Your task to perform on an android device: Search for a storage ottoman in the living room Image 0: 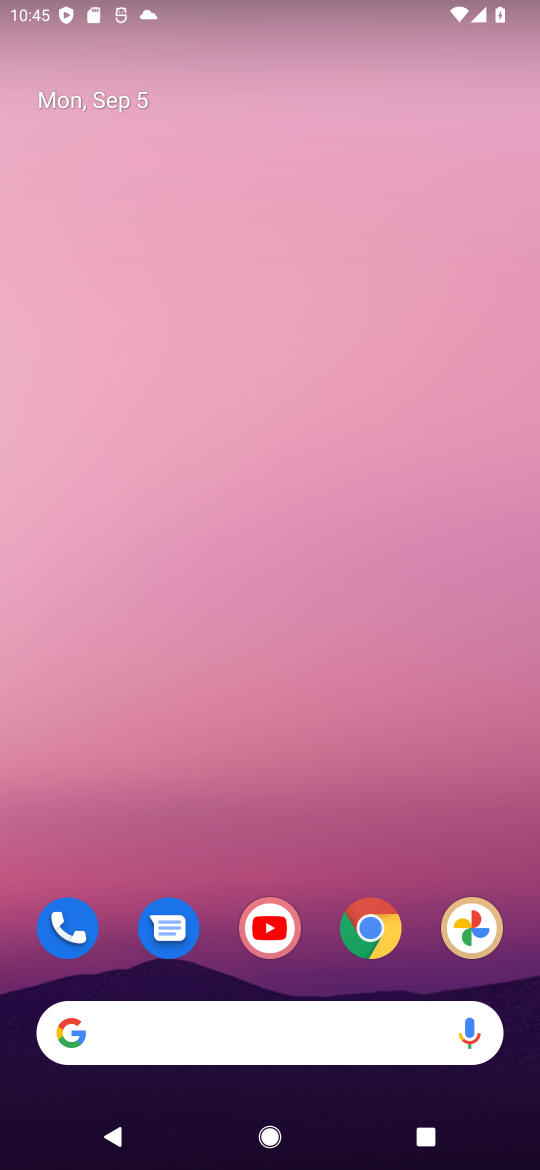
Step 0: drag from (347, 620) to (389, 69)
Your task to perform on an android device: Search for a storage ottoman in the living room Image 1: 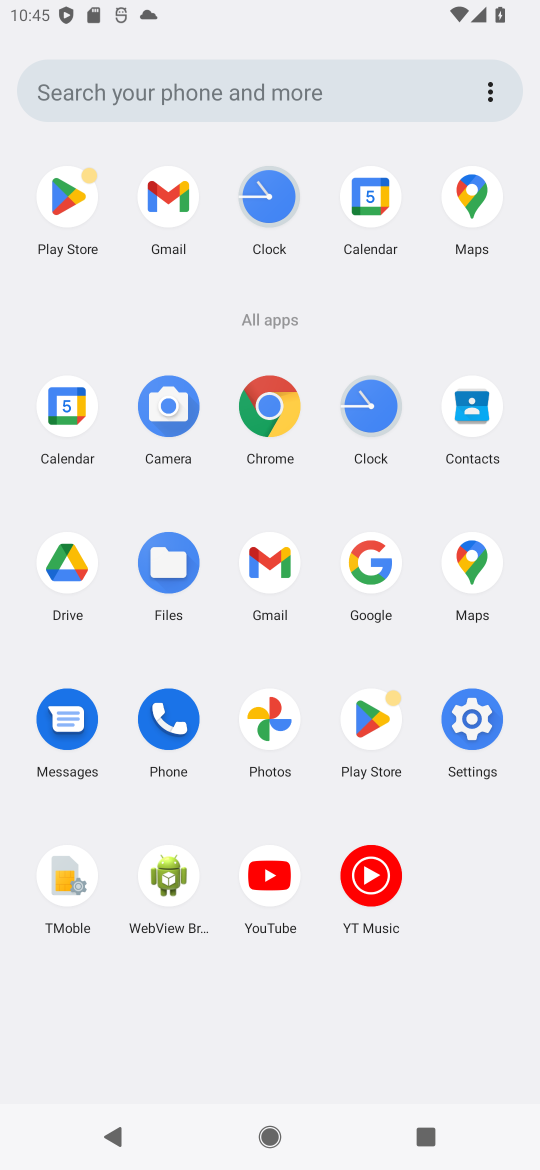
Step 1: click (271, 409)
Your task to perform on an android device: Search for a storage ottoman in the living room Image 2: 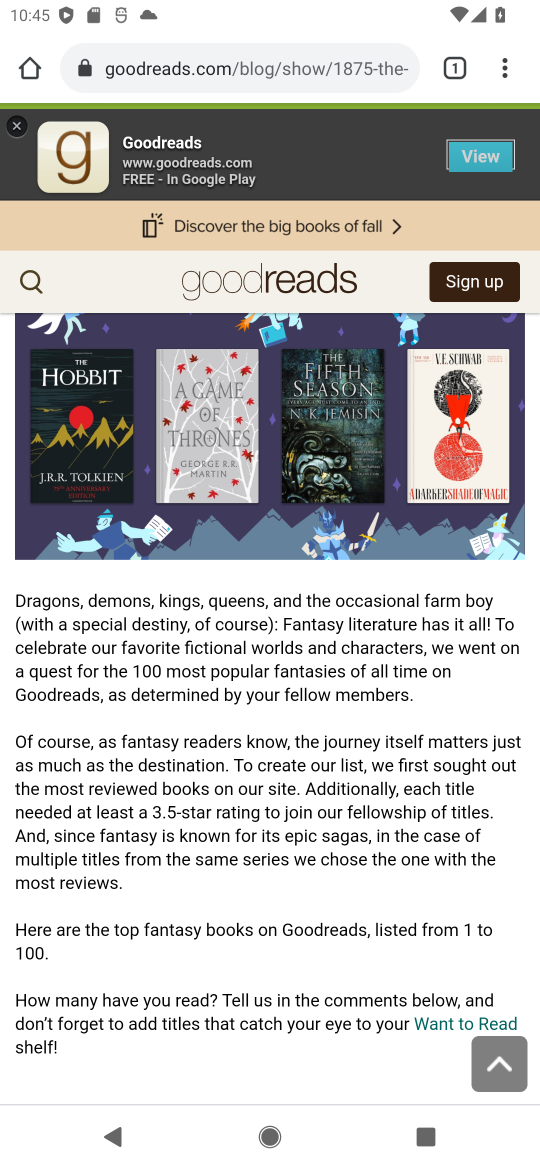
Step 2: click (281, 73)
Your task to perform on an android device: Search for a storage ottoman in the living room Image 3: 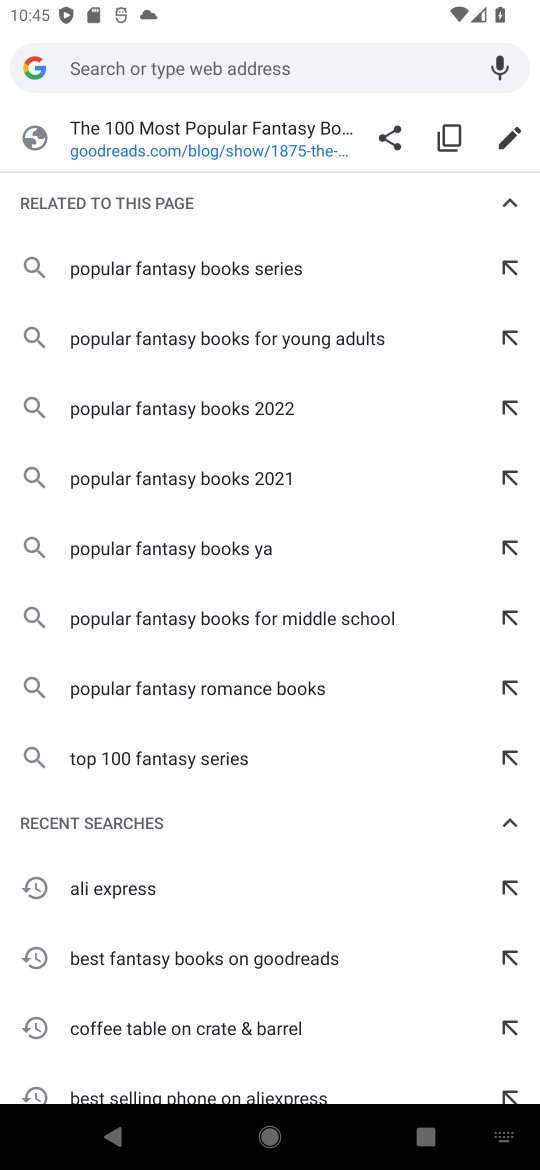
Step 3: type "storage ottoman in the living room"
Your task to perform on an android device: Search for a storage ottoman in the living room Image 4: 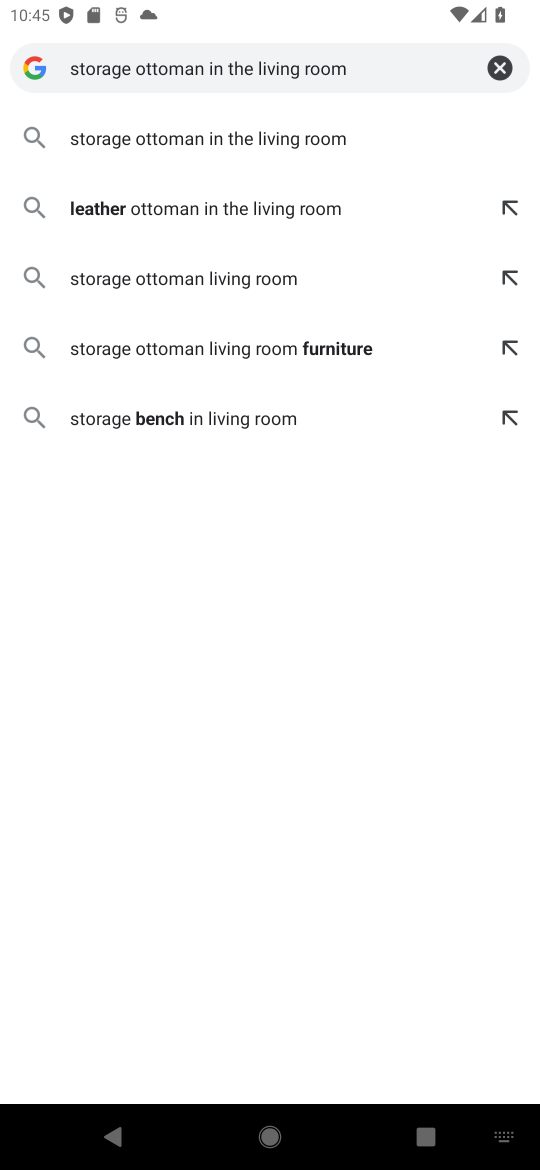
Step 4: press enter
Your task to perform on an android device: Search for a storage ottoman in the living room Image 5: 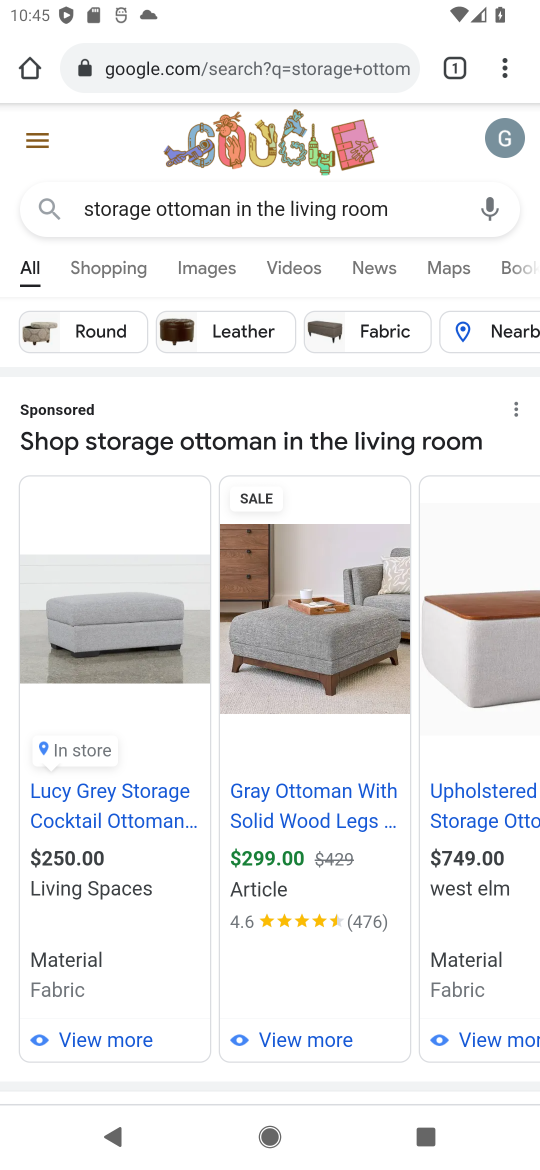
Step 5: task complete